Your task to perform on an android device: open sync settings in chrome Image 0: 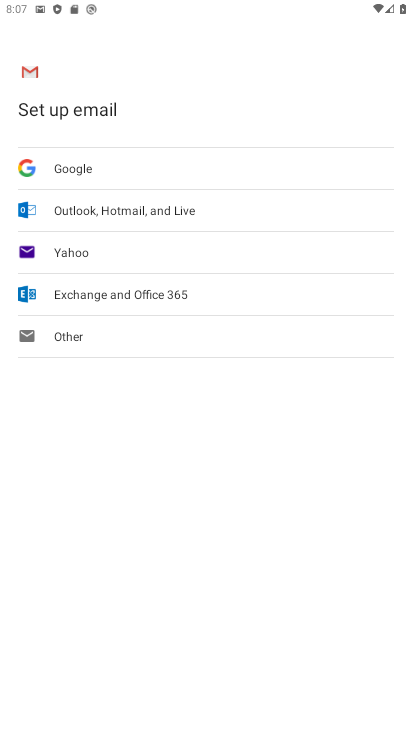
Step 0: press home button
Your task to perform on an android device: open sync settings in chrome Image 1: 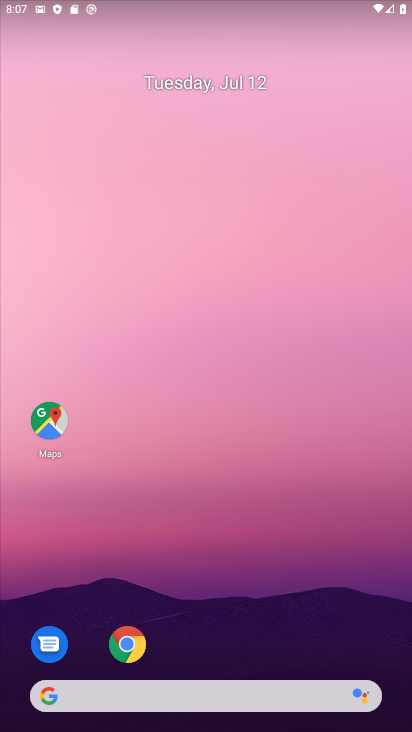
Step 1: click (129, 643)
Your task to perform on an android device: open sync settings in chrome Image 2: 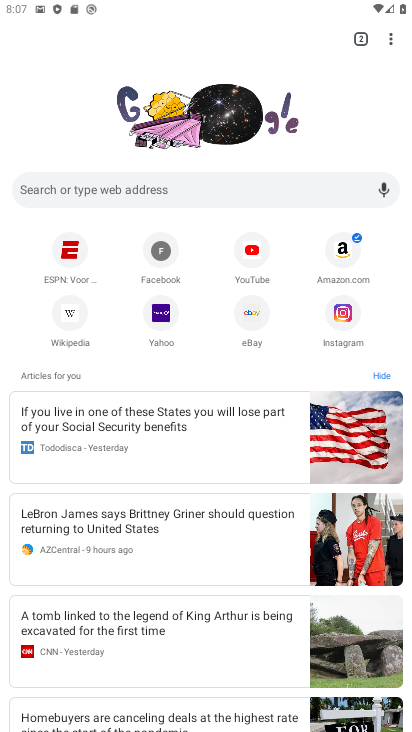
Step 2: click (390, 39)
Your task to perform on an android device: open sync settings in chrome Image 3: 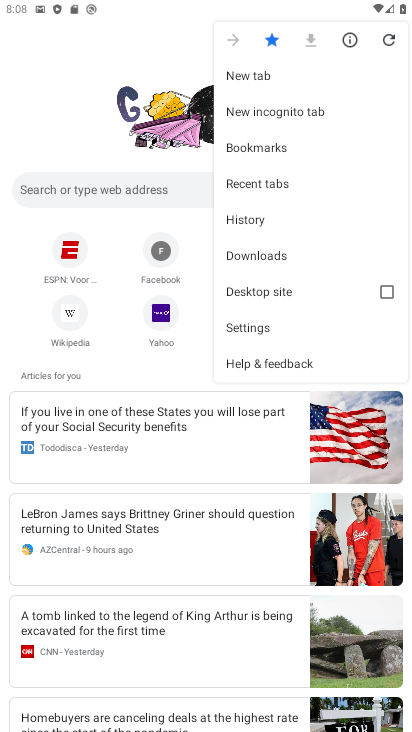
Step 3: click (257, 327)
Your task to perform on an android device: open sync settings in chrome Image 4: 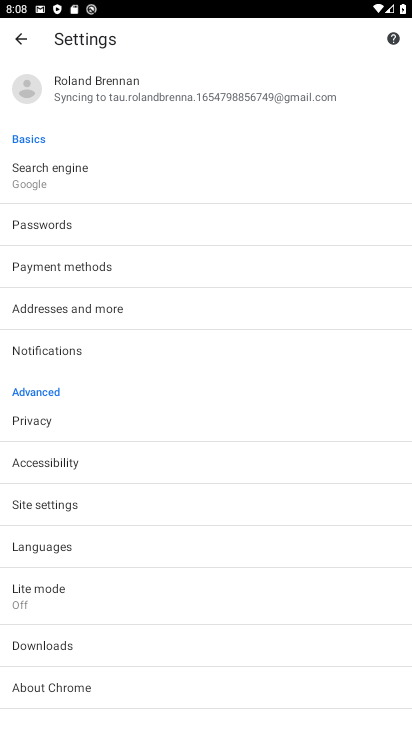
Step 4: click (63, 504)
Your task to perform on an android device: open sync settings in chrome Image 5: 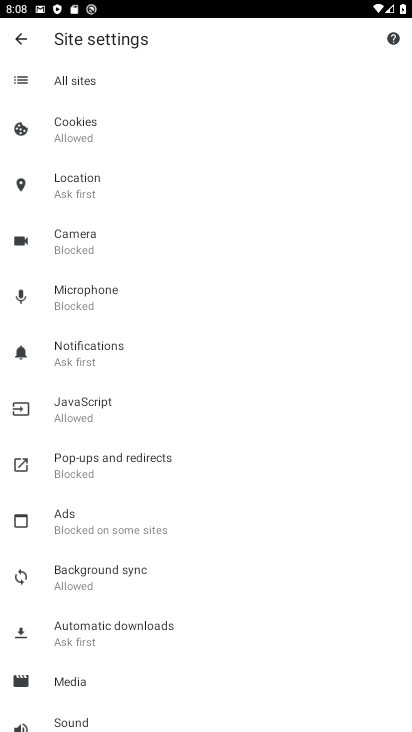
Step 5: click (101, 576)
Your task to perform on an android device: open sync settings in chrome Image 6: 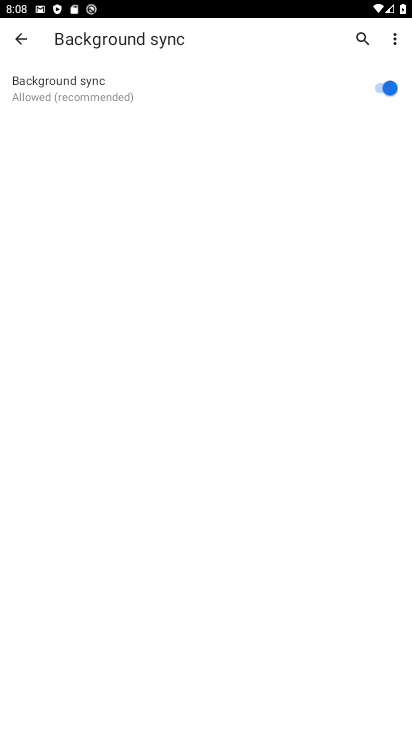
Step 6: task complete